Your task to perform on an android device: Find coffee shops on Maps Image 0: 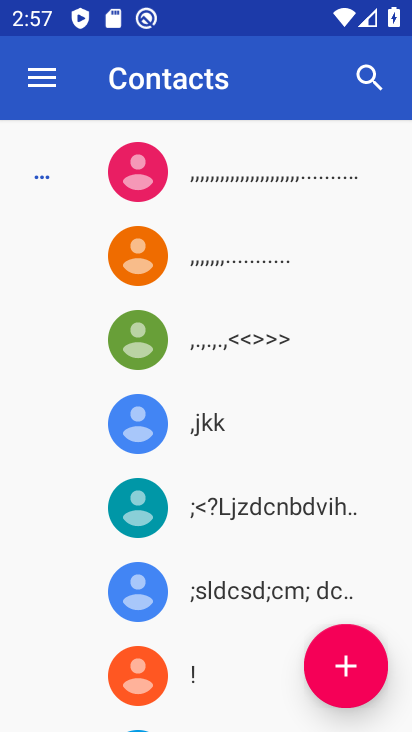
Step 0: press home button
Your task to perform on an android device: Find coffee shops on Maps Image 1: 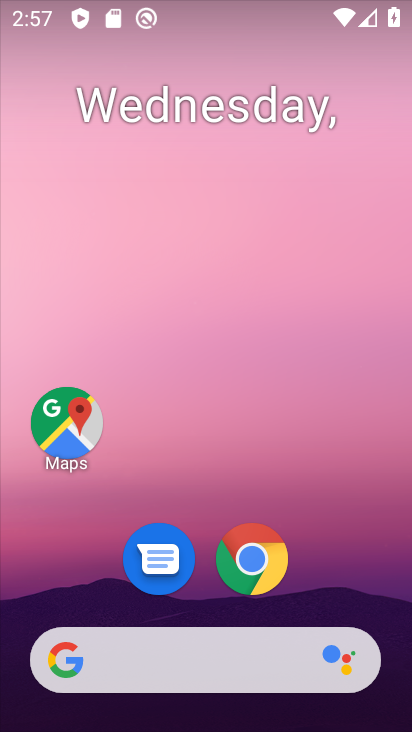
Step 1: click (16, 457)
Your task to perform on an android device: Find coffee shops on Maps Image 2: 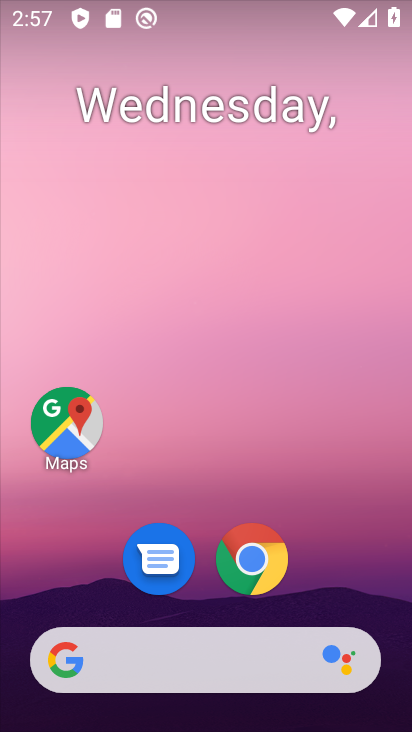
Step 2: click (95, 452)
Your task to perform on an android device: Find coffee shops on Maps Image 3: 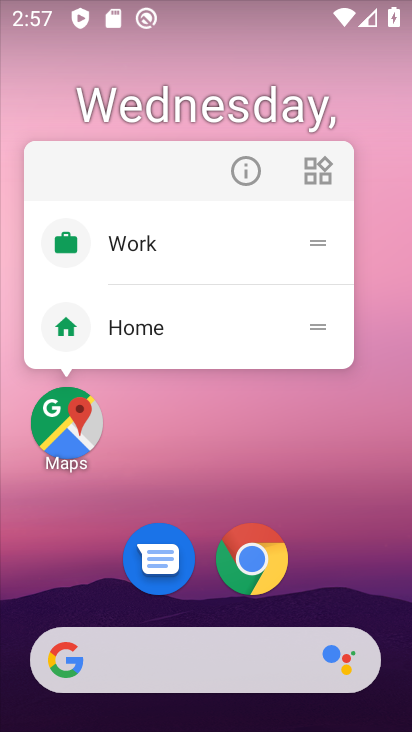
Step 3: click (95, 452)
Your task to perform on an android device: Find coffee shops on Maps Image 4: 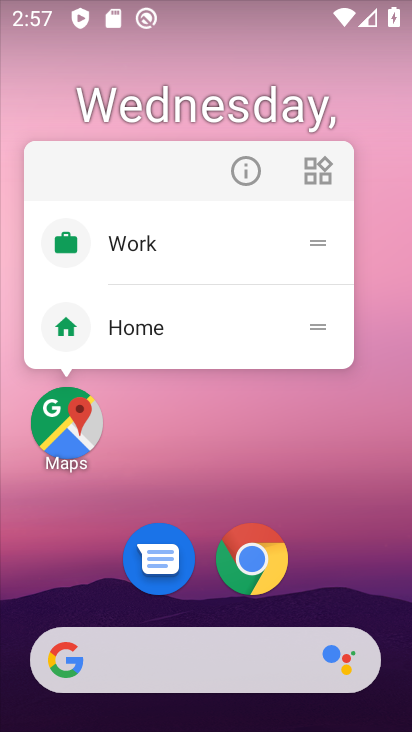
Step 4: click (95, 434)
Your task to perform on an android device: Find coffee shops on Maps Image 5: 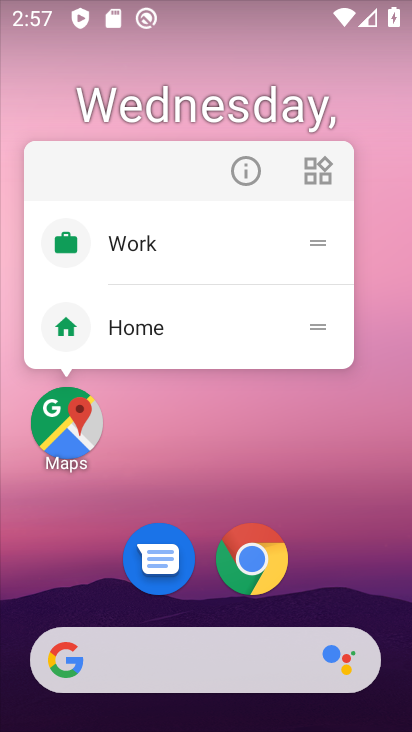
Step 5: drag from (313, 540) to (377, 74)
Your task to perform on an android device: Find coffee shops on Maps Image 6: 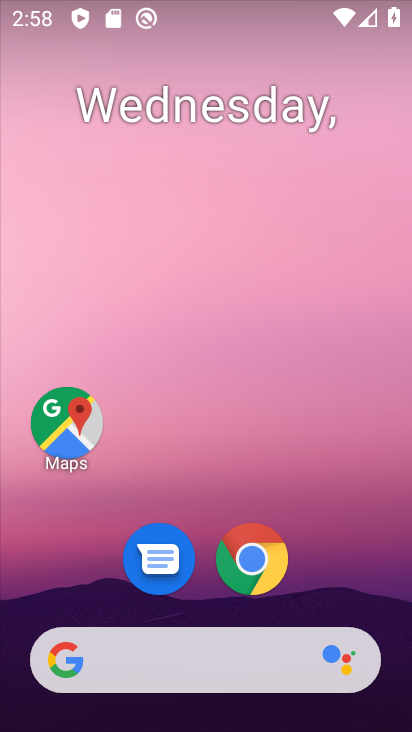
Step 6: drag from (349, 574) to (279, 187)
Your task to perform on an android device: Find coffee shops on Maps Image 7: 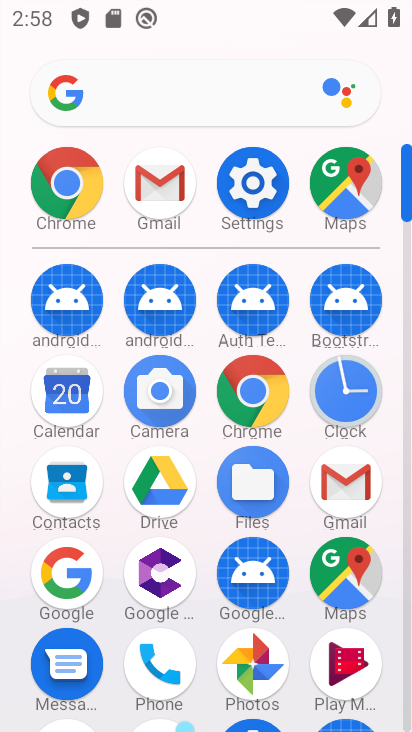
Step 7: click (348, 185)
Your task to perform on an android device: Find coffee shops on Maps Image 8: 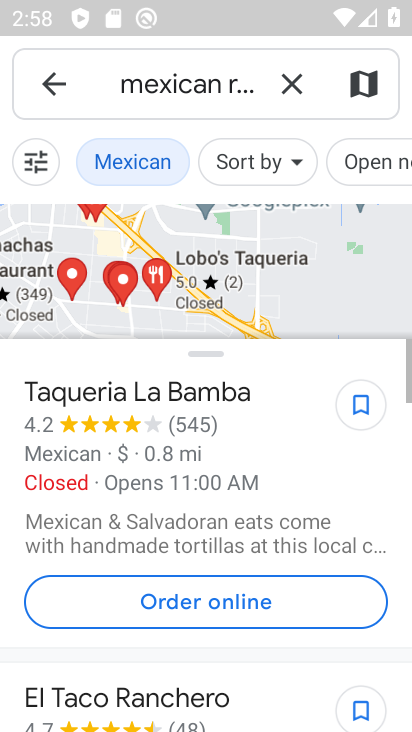
Step 8: click (283, 74)
Your task to perform on an android device: Find coffee shops on Maps Image 9: 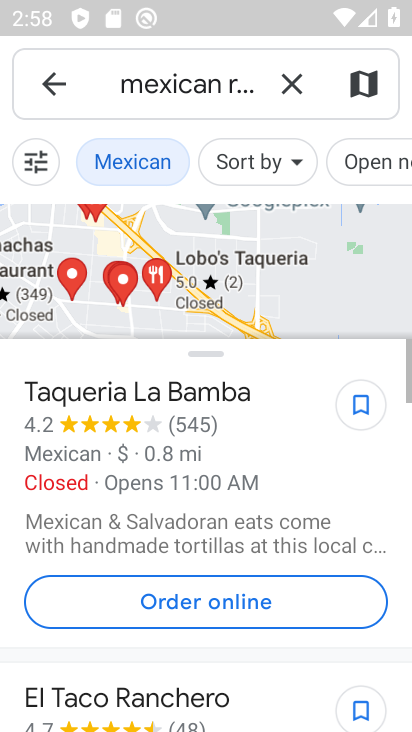
Step 9: click (290, 86)
Your task to perform on an android device: Find coffee shops on Maps Image 10: 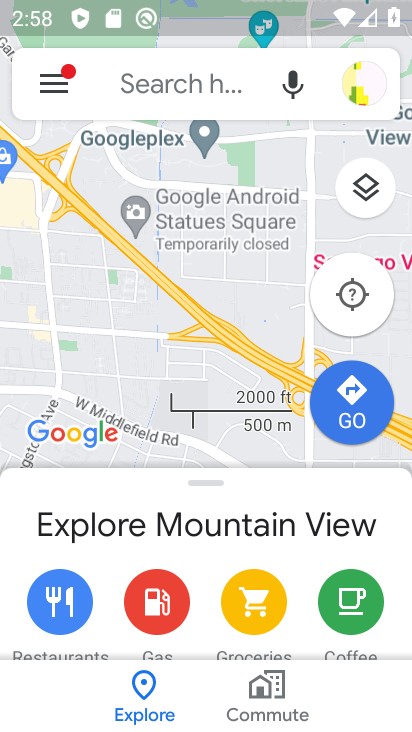
Step 10: click (202, 85)
Your task to perform on an android device: Find coffee shops on Maps Image 11: 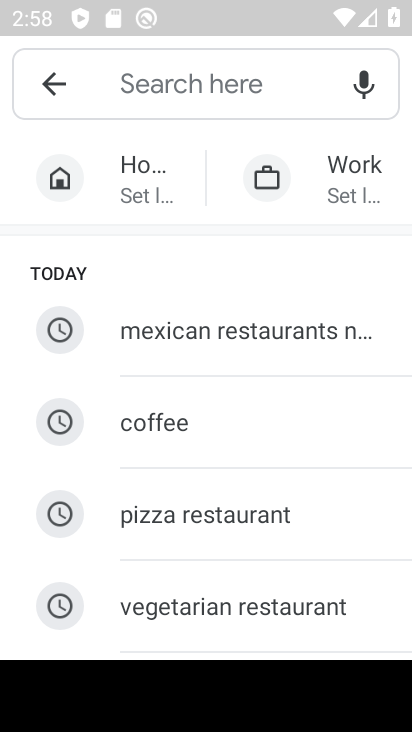
Step 11: type "coffee shops"
Your task to perform on an android device: Find coffee shops on Maps Image 12: 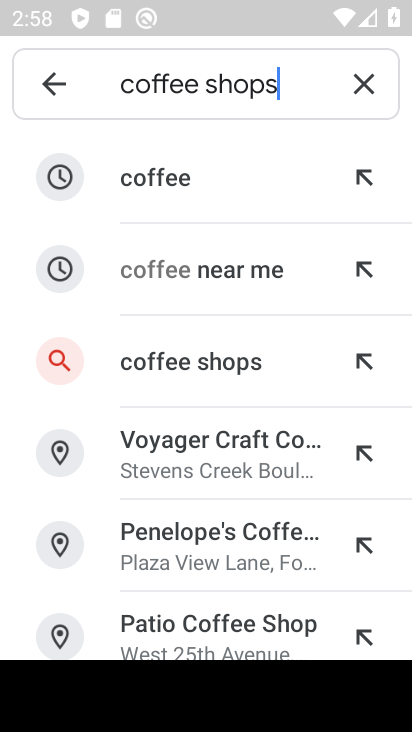
Step 12: click (174, 367)
Your task to perform on an android device: Find coffee shops on Maps Image 13: 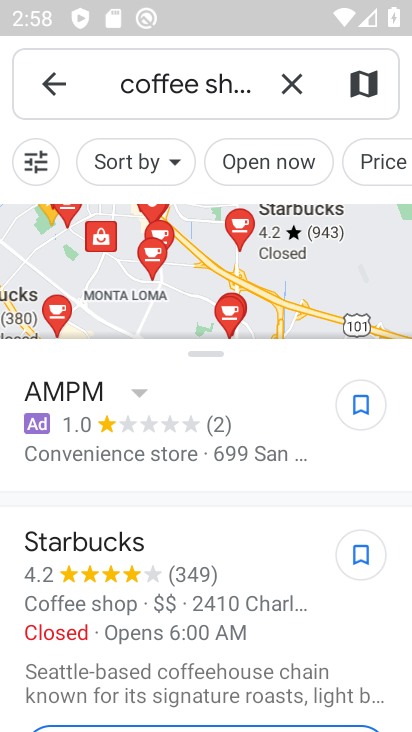
Step 13: task complete